Your task to perform on an android device: Go to CNN.com Image 0: 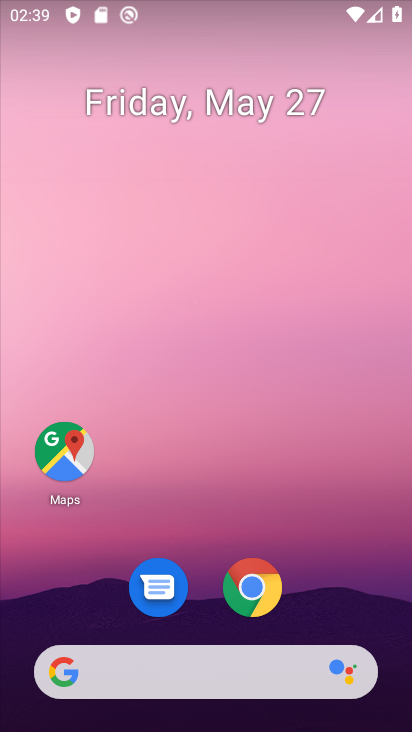
Step 0: press home button
Your task to perform on an android device: Go to CNN.com Image 1: 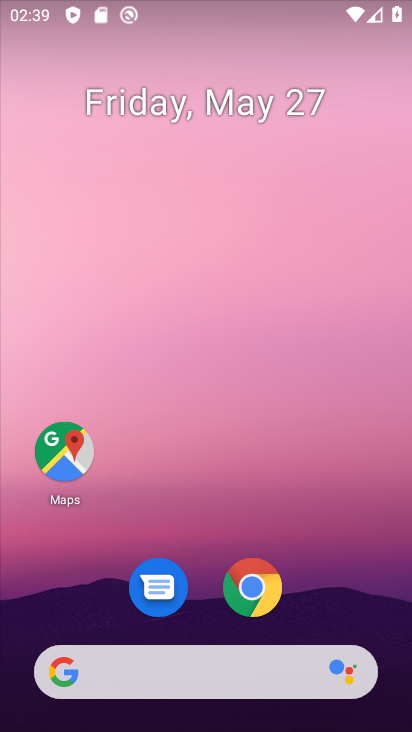
Step 1: click (62, 689)
Your task to perform on an android device: Go to CNN.com Image 2: 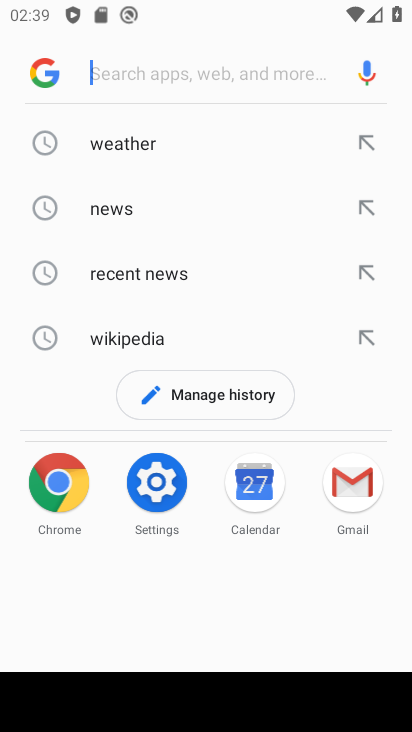
Step 2: type "CNN.com"
Your task to perform on an android device: Go to CNN.com Image 3: 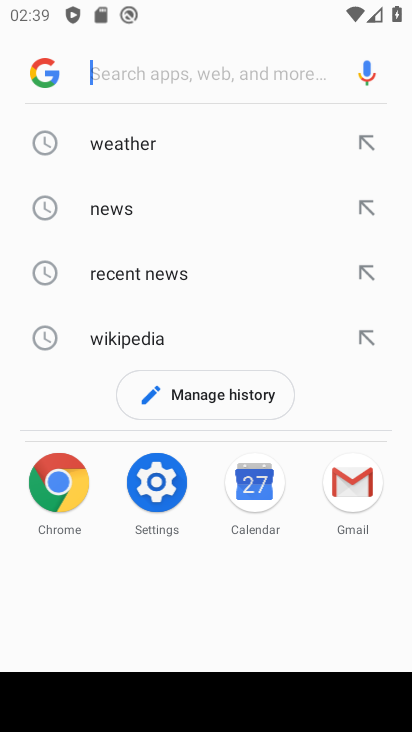
Step 3: click (139, 72)
Your task to perform on an android device: Go to CNN.com Image 4: 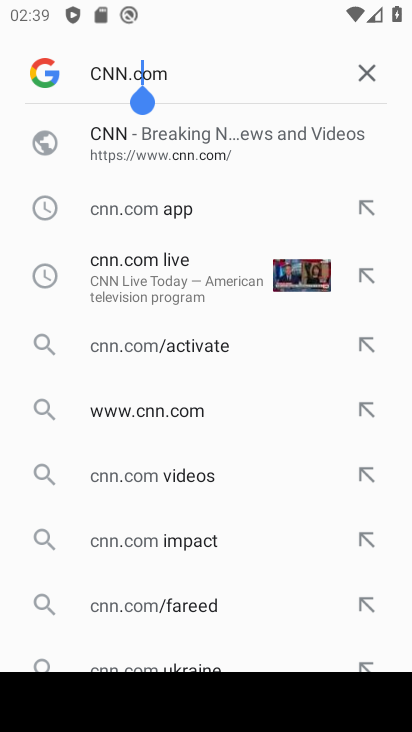
Step 4: click (168, 143)
Your task to perform on an android device: Go to CNN.com Image 5: 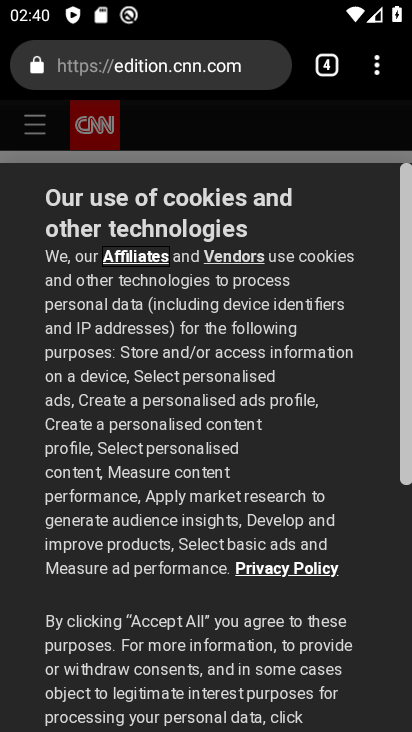
Step 5: task complete